Your task to perform on an android device: uninstall "TextNow: Call + Text Unlimited" Image 0: 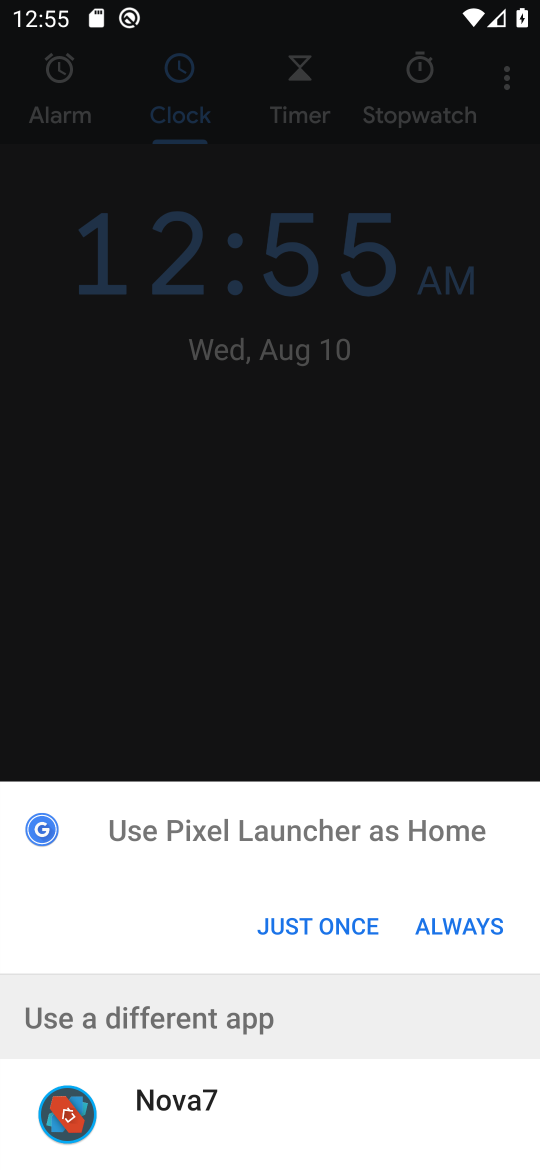
Step 0: click (305, 925)
Your task to perform on an android device: uninstall "TextNow: Call + Text Unlimited" Image 1: 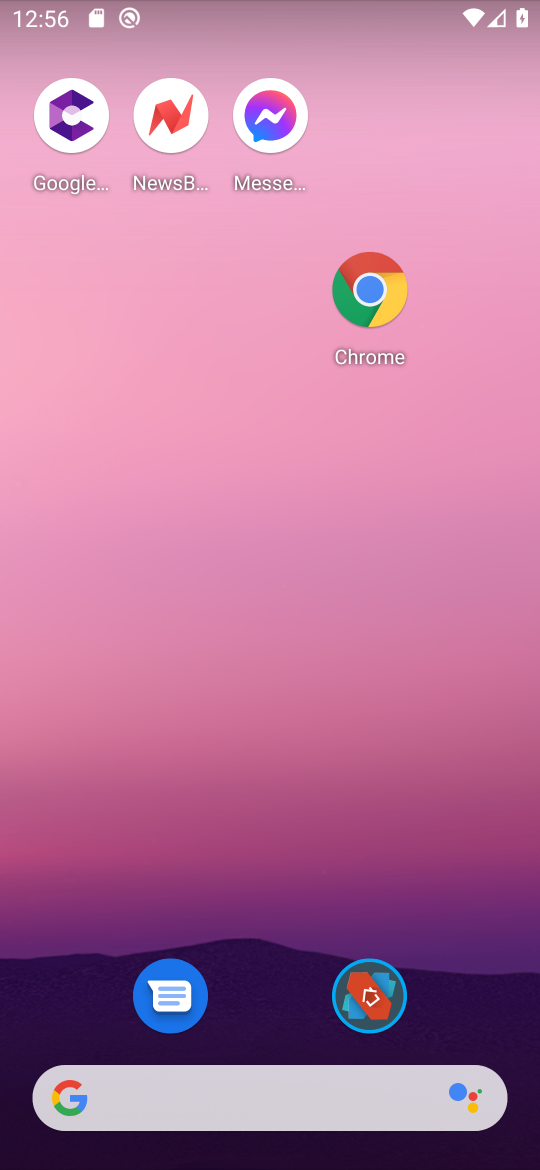
Step 1: drag from (66, 1120) to (260, 133)
Your task to perform on an android device: uninstall "TextNow: Call + Text Unlimited" Image 2: 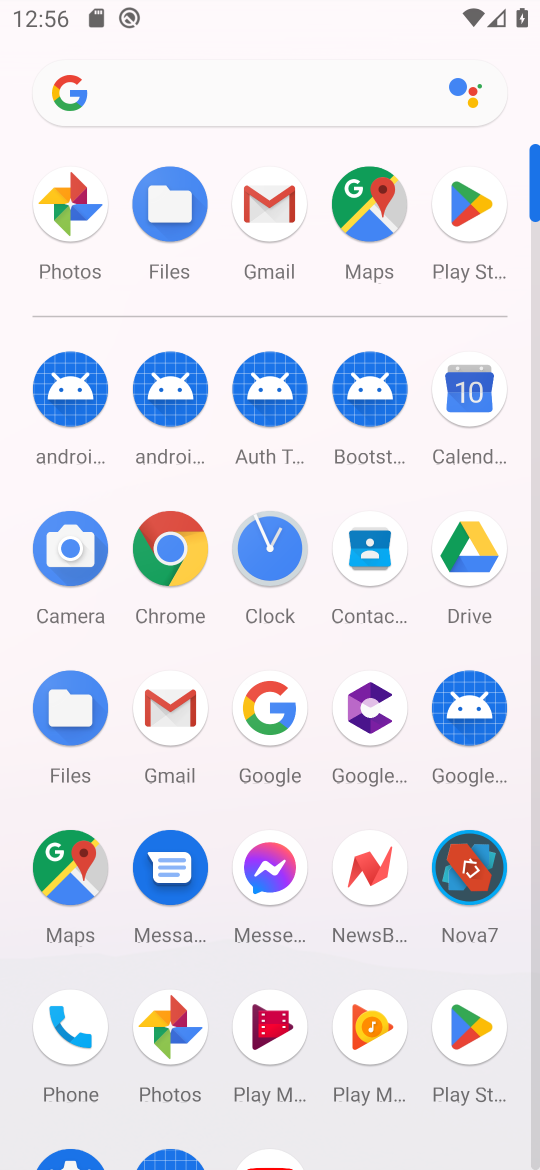
Step 2: click (475, 211)
Your task to perform on an android device: uninstall "TextNow: Call + Text Unlimited" Image 3: 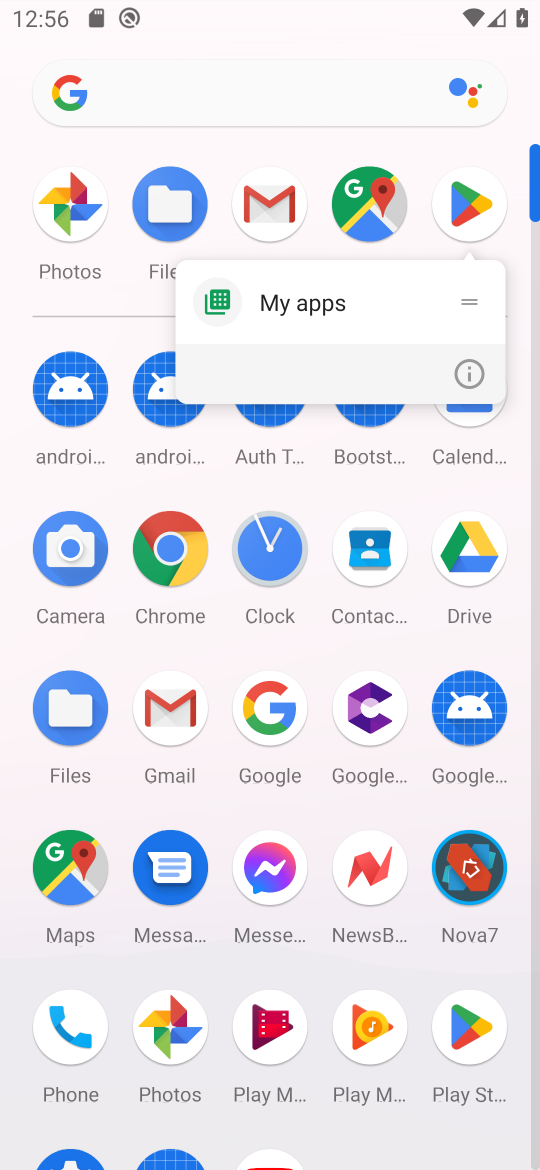
Step 3: click (477, 212)
Your task to perform on an android device: uninstall "TextNow: Call + Text Unlimited" Image 4: 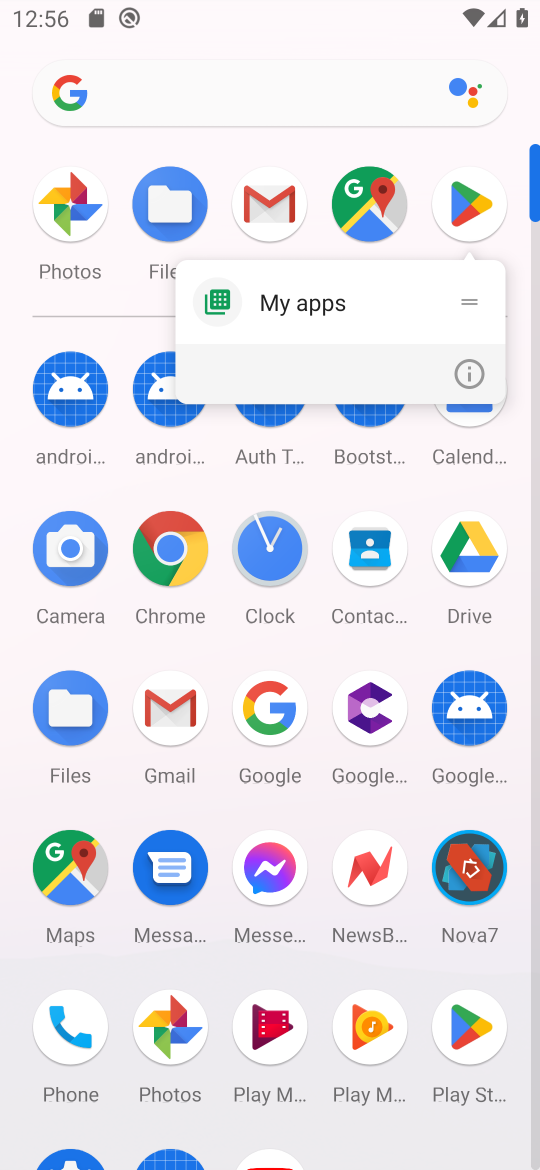
Step 4: click (477, 212)
Your task to perform on an android device: uninstall "TextNow: Call + Text Unlimited" Image 5: 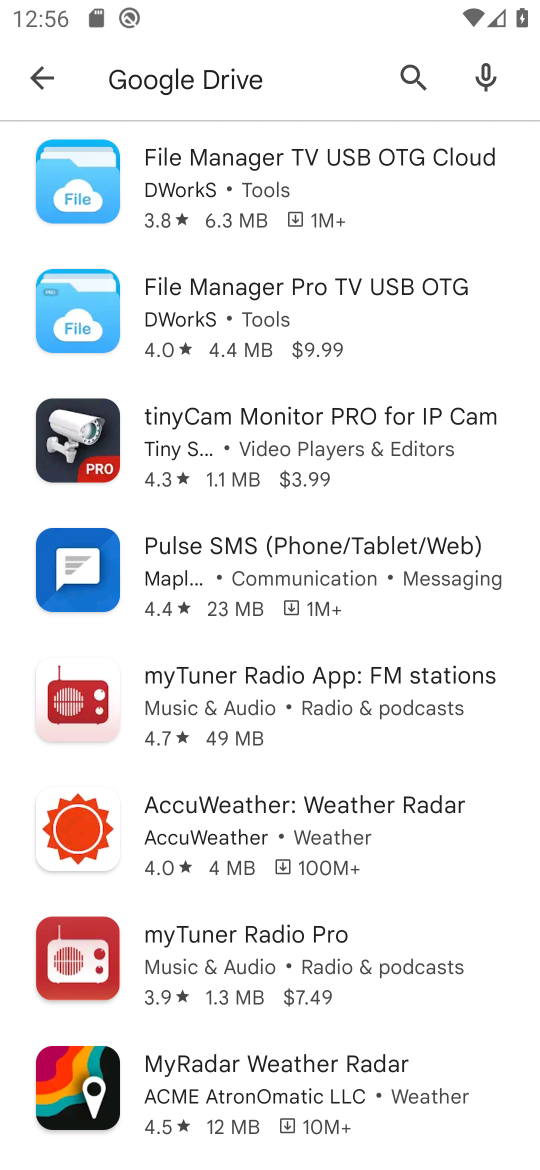
Step 5: click (54, 88)
Your task to perform on an android device: uninstall "TextNow: Call + Text Unlimited" Image 6: 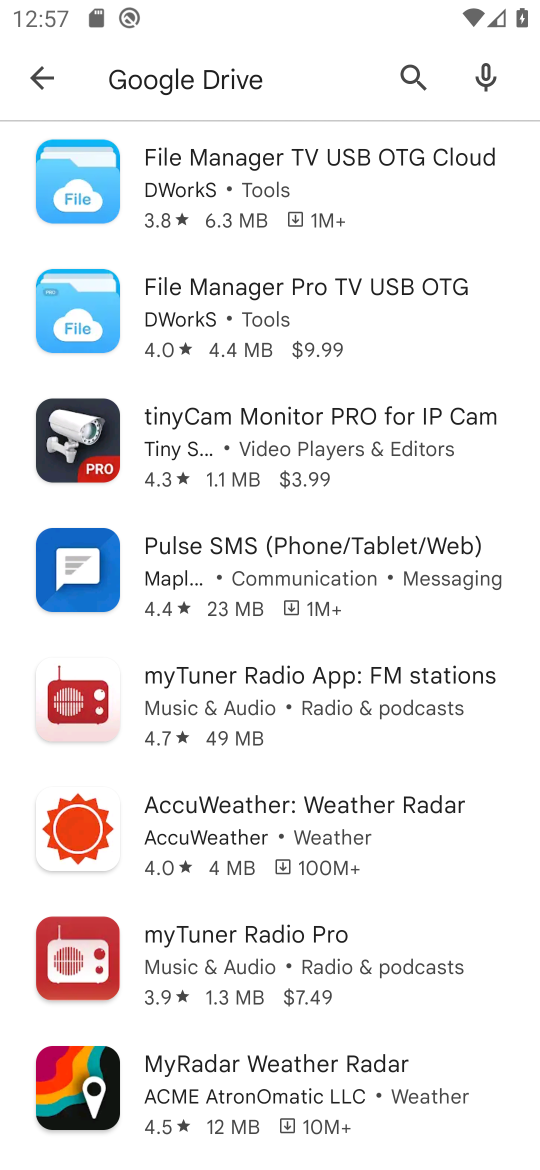
Step 6: click (44, 68)
Your task to perform on an android device: uninstall "TextNow: Call + Text Unlimited" Image 7: 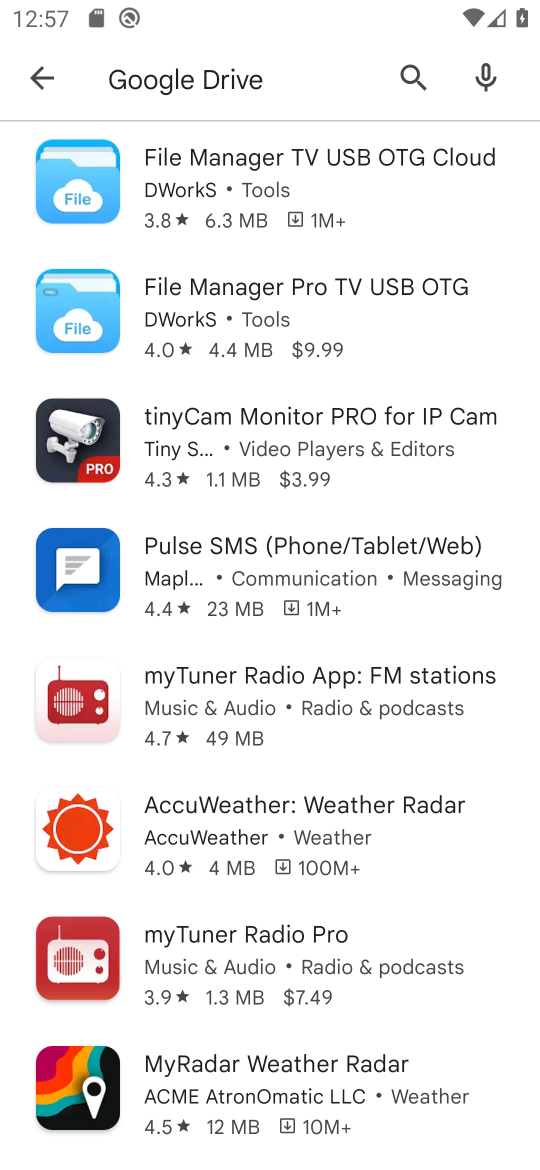
Step 7: press back button
Your task to perform on an android device: uninstall "TextNow: Call + Text Unlimited" Image 8: 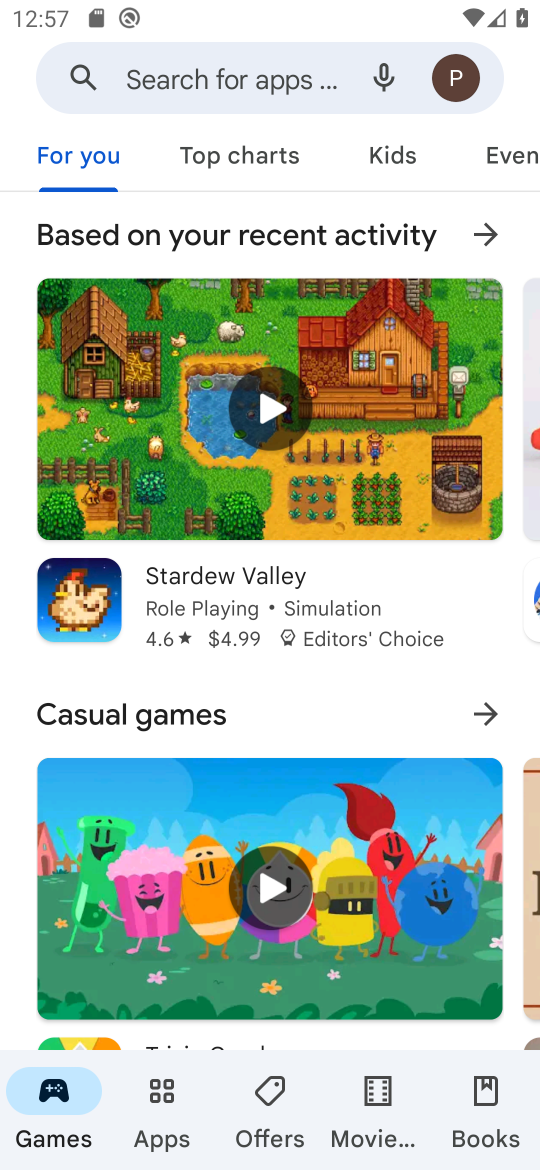
Step 8: click (263, 93)
Your task to perform on an android device: uninstall "TextNow: Call + Text Unlimited" Image 9: 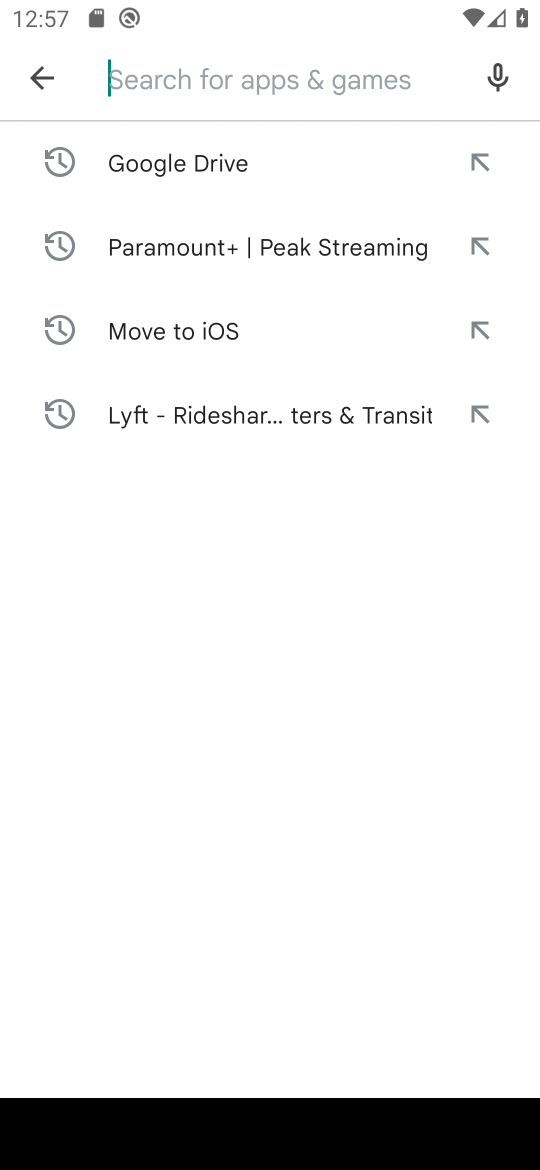
Step 9: type "TextNow: Call + Text Unlimited"
Your task to perform on an android device: uninstall "TextNow: Call + Text Unlimited" Image 10: 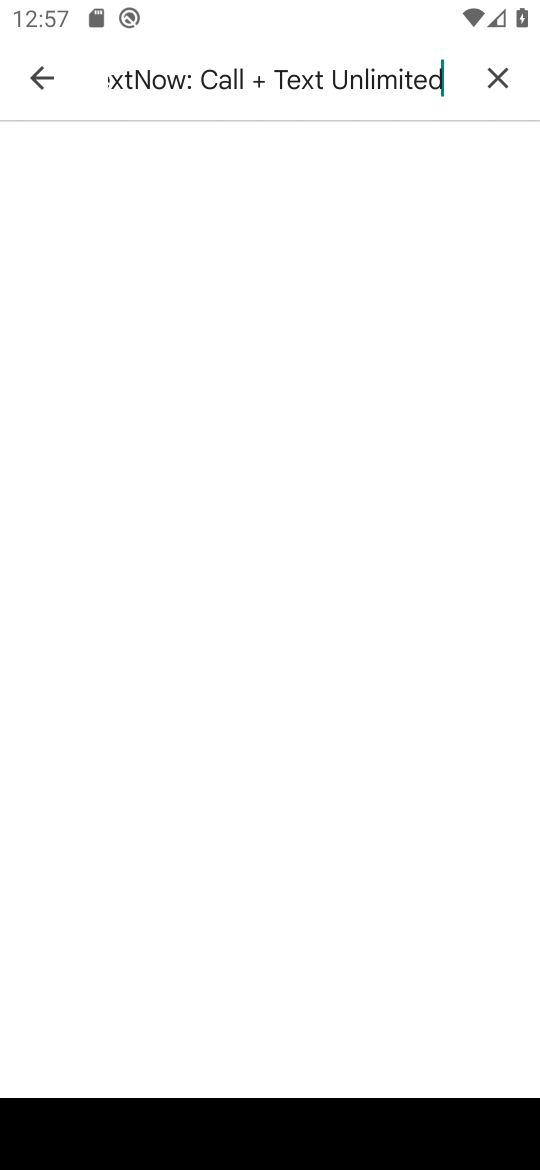
Step 10: press enter
Your task to perform on an android device: uninstall "TextNow: Call + Text Unlimited" Image 11: 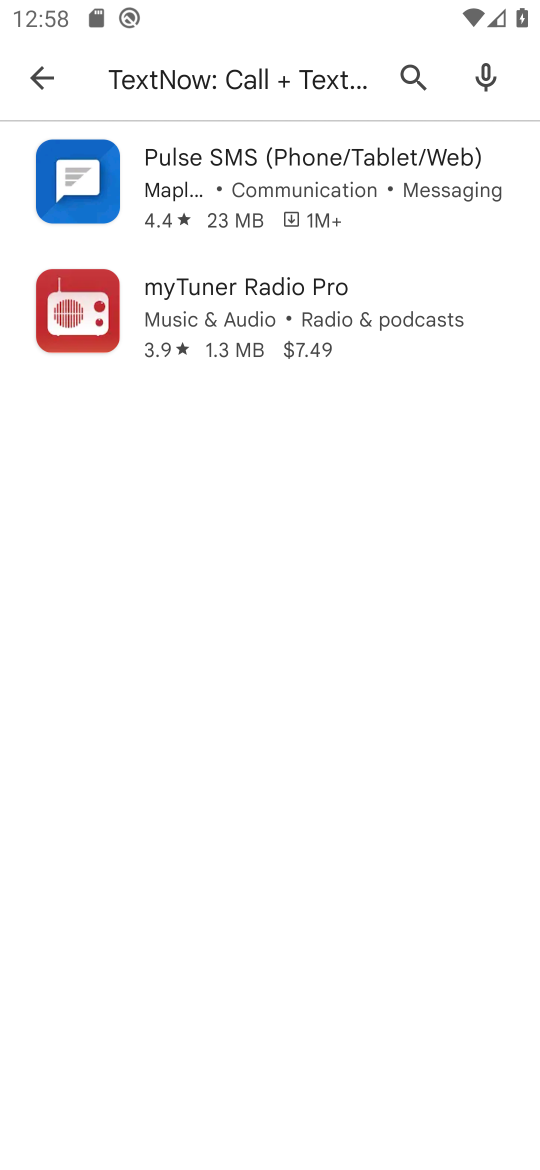
Step 11: task complete